Your task to perform on an android device: Is it going to rain tomorrow? Image 0: 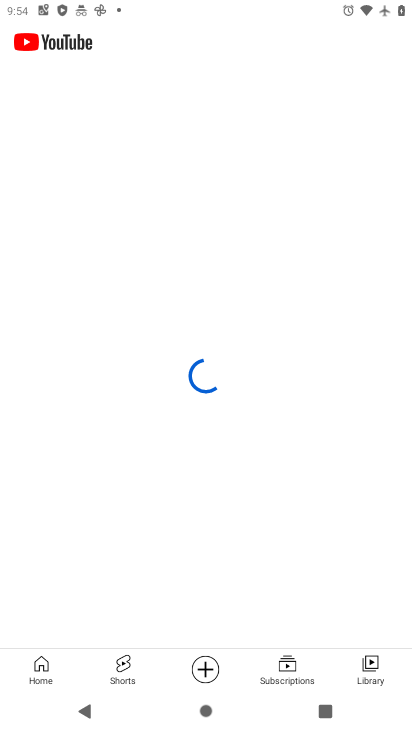
Step 0: press home button
Your task to perform on an android device: Is it going to rain tomorrow? Image 1: 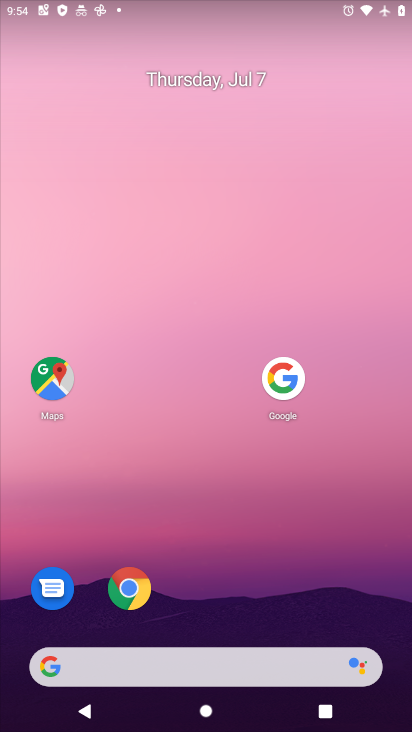
Step 1: click (202, 668)
Your task to perform on an android device: Is it going to rain tomorrow? Image 2: 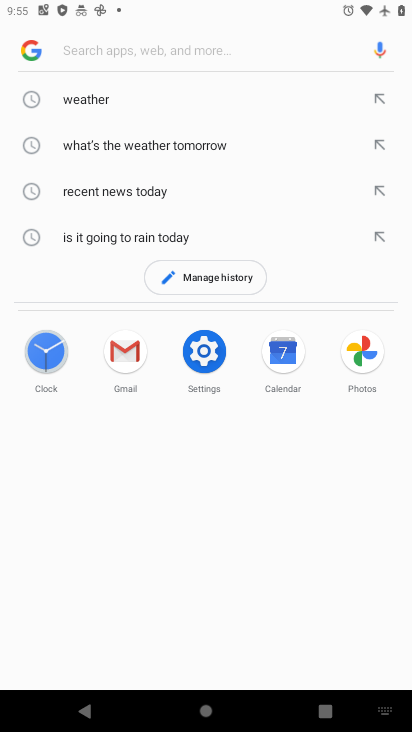
Step 2: click (112, 234)
Your task to perform on an android device: Is it going to rain tomorrow? Image 3: 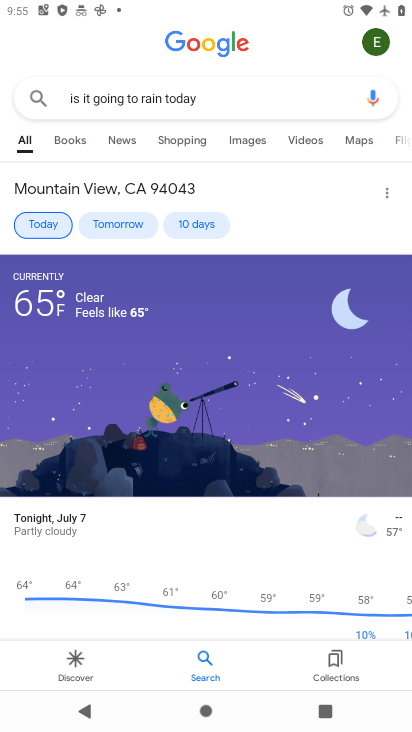
Step 3: click (124, 224)
Your task to perform on an android device: Is it going to rain tomorrow? Image 4: 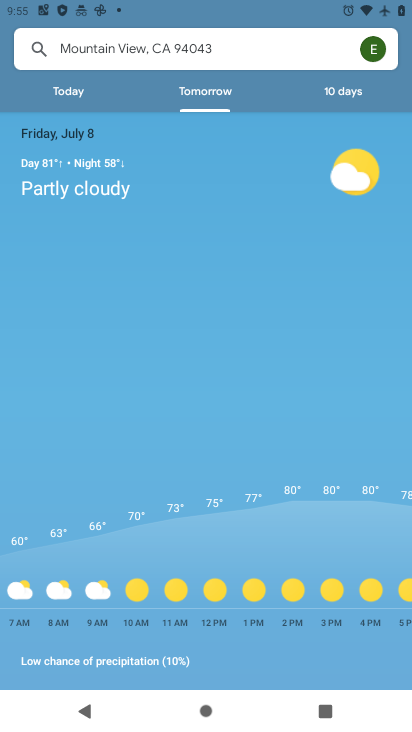
Step 4: task complete